Your task to perform on an android device: Search for vegetarian restaurants on Maps Image 0: 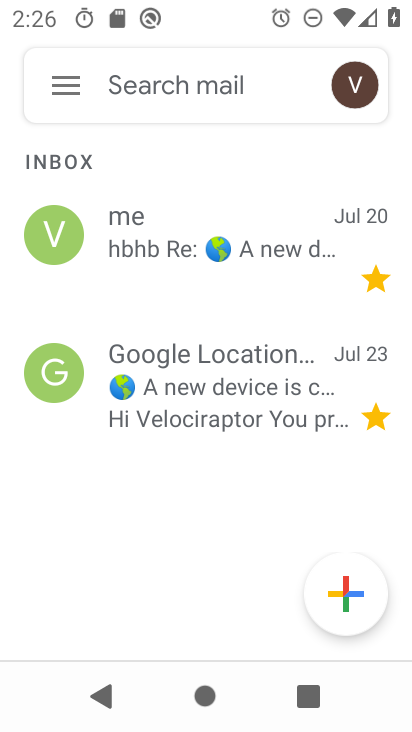
Step 0: press back button
Your task to perform on an android device: Search for vegetarian restaurants on Maps Image 1: 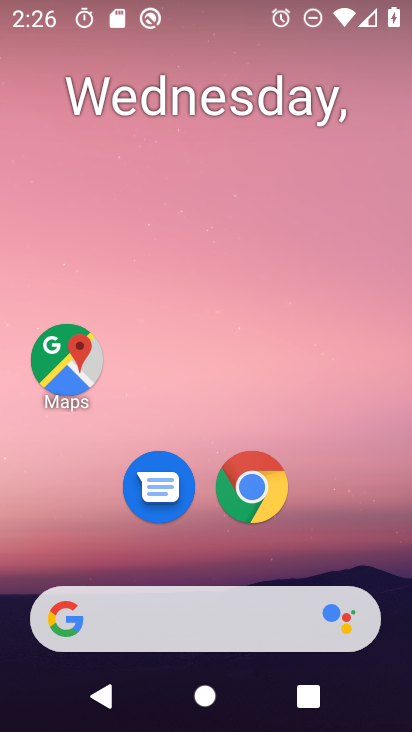
Step 1: click (41, 362)
Your task to perform on an android device: Search for vegetarian restaurants on Maps Image 2: 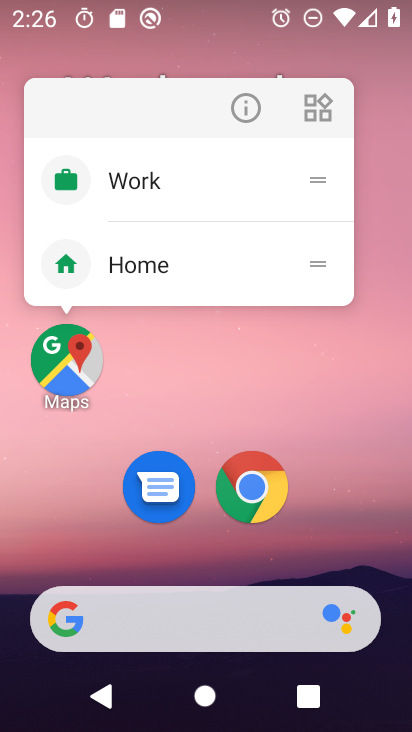
Step 2: click (79, 381)
Your task to perform on an android device: Search for vegetarian restaurants on Maps Image 3: 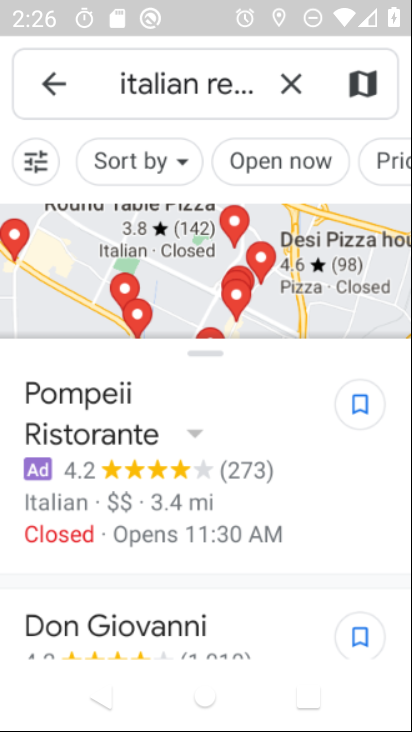
Step 3: click (288, 81)
Your task to perform on an android device: Search for vegetarian restaurants on Maps Image 4: 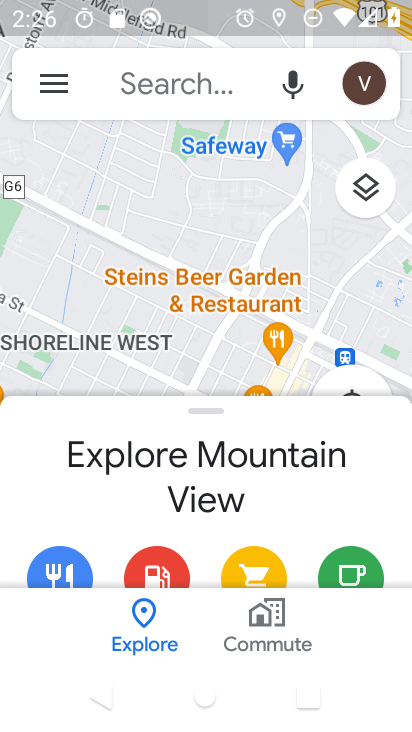
Step 4: click (131, 94)
Your task to perform on an android device: Search for vegetarian restaurants on Maps Image 5: 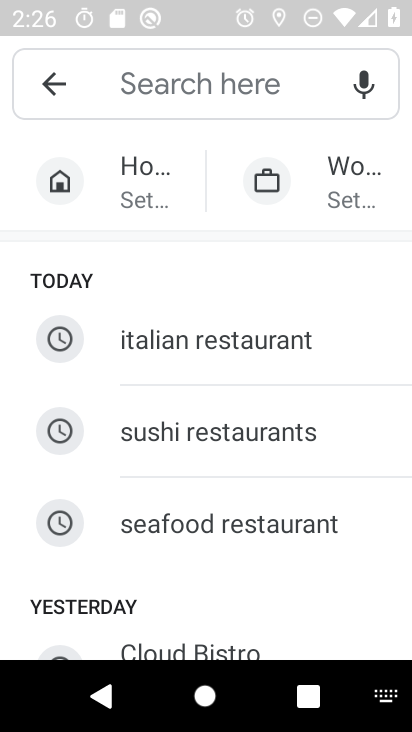
Step 5: drag from (202, 593) to (333, 153)
Your task to perform on an android device: Search for vegetarian restaurants on Maps Image 6: 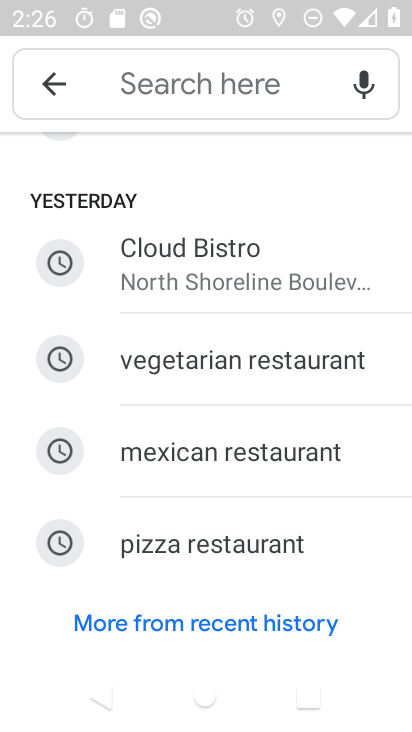
Step 6: click (208, 364)
Your task to perform on an android device: Search for vegetarian restaurants on Maps Image 7: 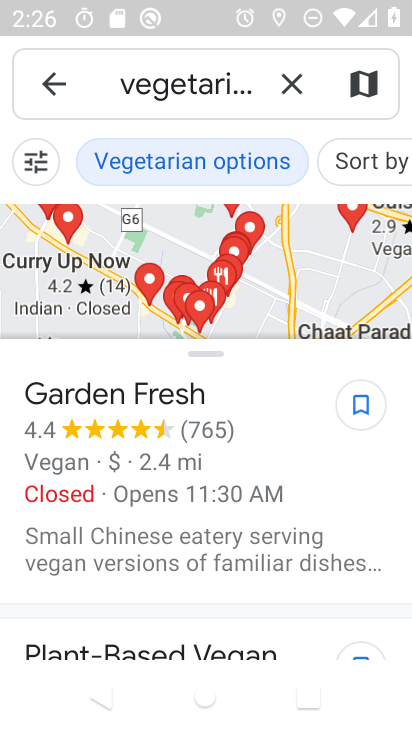
Step 7: task complete